Your task to perform on an android device: Search for the best rated Bluetooth earbuds on Ali express Image 0: 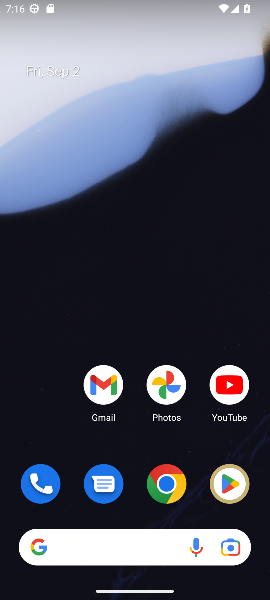
Step 0: click (165, 479)
Your task to perform on an android device: Search for the best rated Bluetooth earbuds on Ali express Image 1: 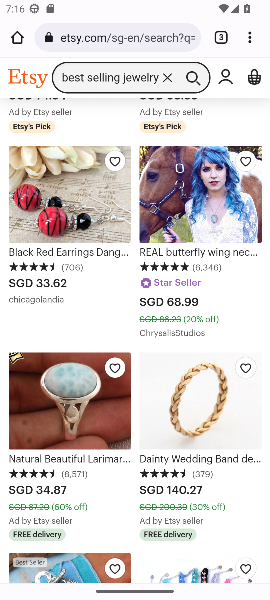
Step 1: click (151, 37)
Your task to perform on an android device: Search for the best rated Bluetooth earbuds on Ali express Image 2: 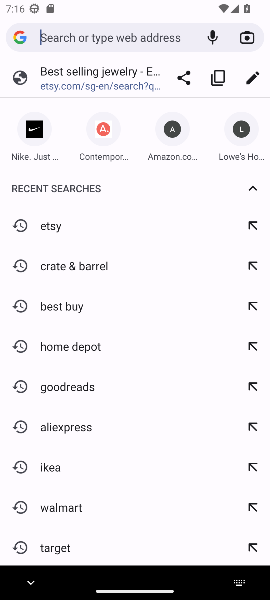
Step 2: type "Ali express"
Your task to perform on an android device: Search for the best rated Bluetooth earbuds on Ali express Image 3: 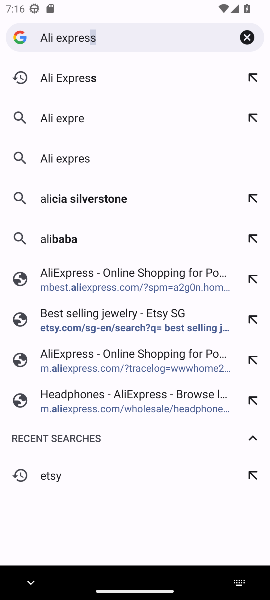
Step 3: press enter
Your task to perform on an android device: Search for the best rated Bluetooth earbuds on Ali express Image 4: 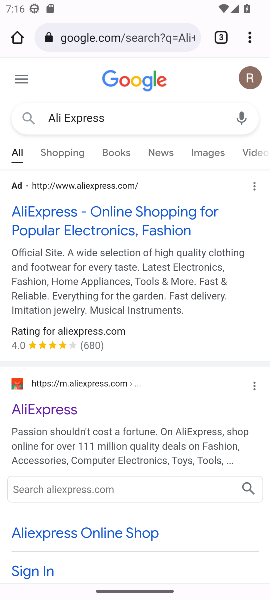
Step 4: click (56, 413)
Your task to perform on an android device: Search for the best rated Bluetooth earbuds on Ali express Image 5: 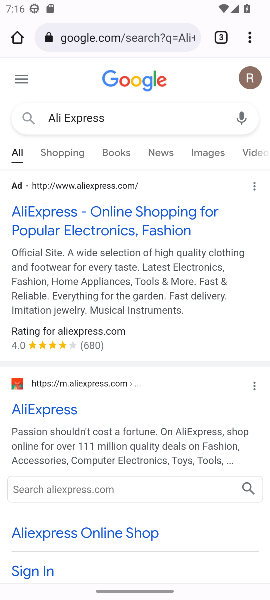
Step 5: click (60, 404)
Your task to perform on an android device: Search for the best rated Bluetooth earbuds on Ali express Image 6: 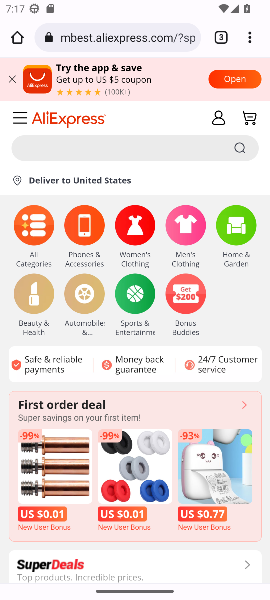
Step 6: click (107, 150)
Your task to perform on an android device: Search for the best rated Bluetooth earbuds on Ali express Image 7: 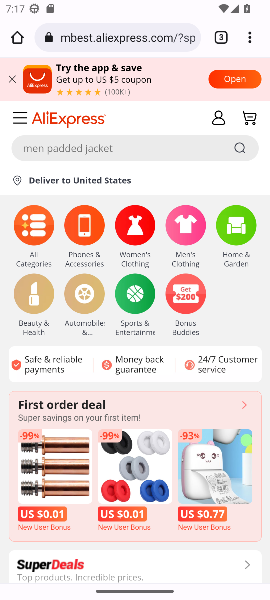
Step 7: click (121, 147)
Your task to perform on an android device: Search for the best rated Bluetooth earbuds on Ali express Image 8: 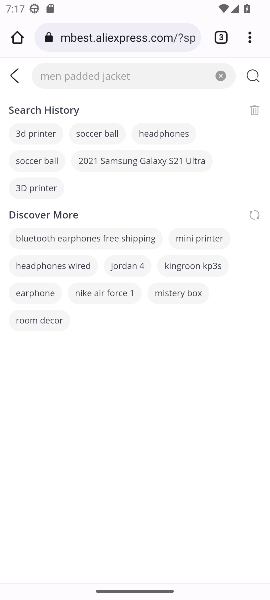
Step 8: click (221, 72)
Your task to perform on an android device: Search for the best rated Bluetooth earbuds on Ali express Image 9: 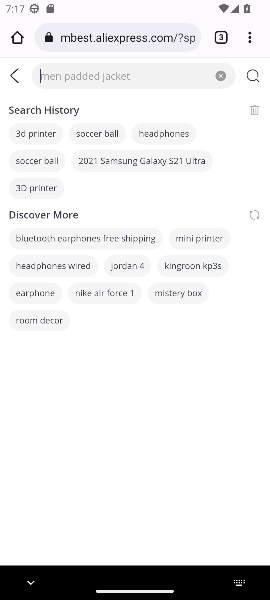
Step 9: type "Bluetooth"
Your task to perform on an android device: Search for the best rated Bluetooth earbuds on Ali express Image 10: 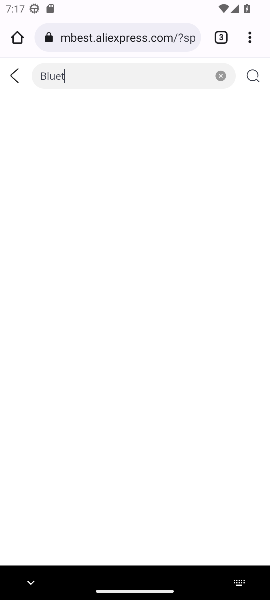
Step 10: press enter
Your task to perform on an android device: Search for the best rated Bluetooth earbuds on Ali express Image 11: 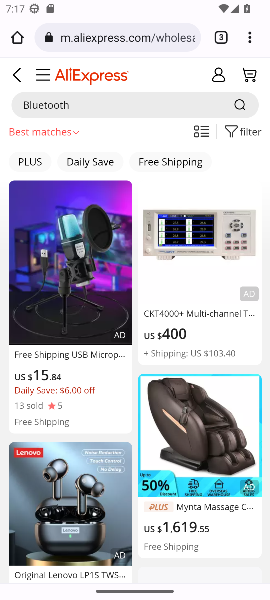
Step 11: task complete